Your task to perform on an android device: turn on javascript in the chrome app Image 0: 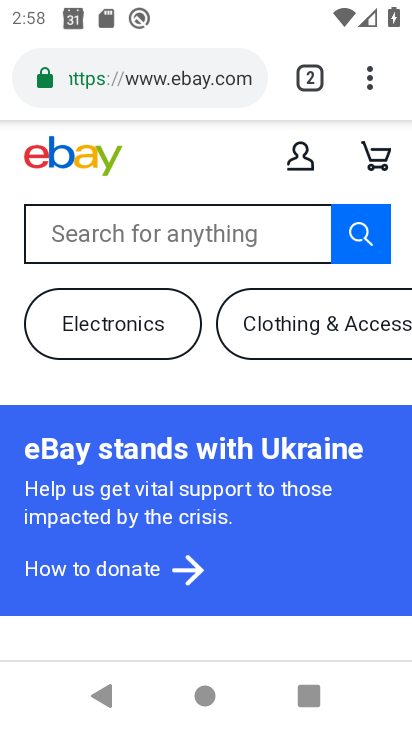
Step 0: click (371, 73)
Your task to perform on an android device: turn on javascript in the chrome app Image 1: 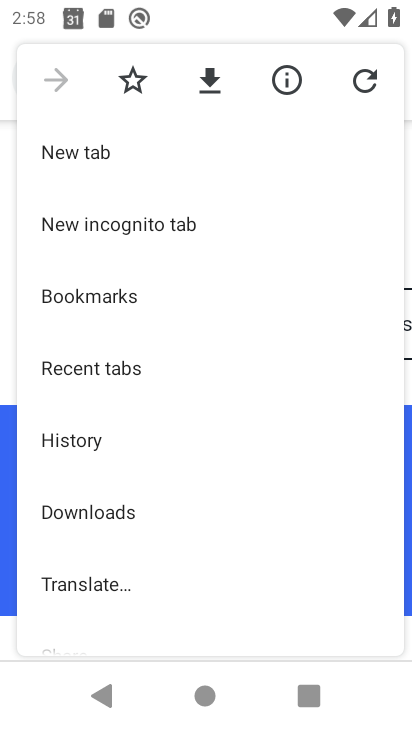
Step 1: drag from (288, 625) to (225, 264)
Your task to perform on an android device: turn on javascript in the chrome app Image 2: 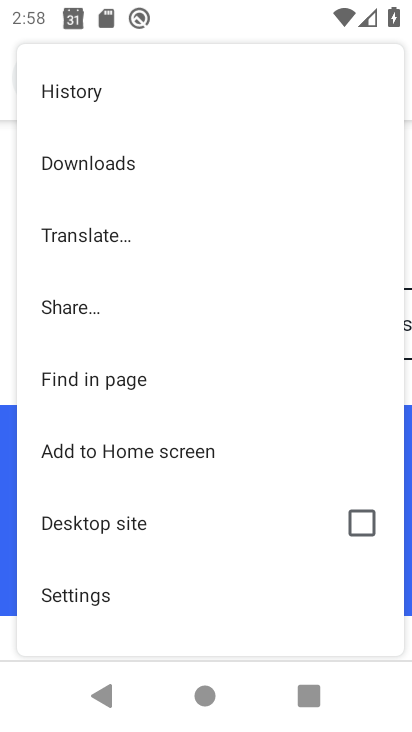
Step 2: click (215, 602)
Your task to perform on an android device: turn on javascript in the chrome app Image 3: 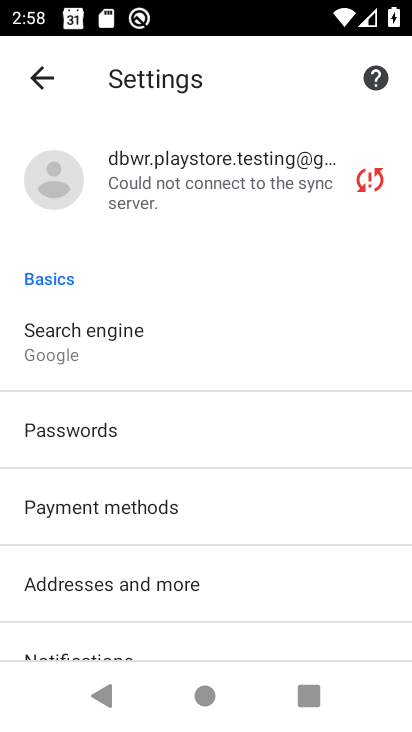
Step 3: drag from (233, 643) to (190, 318)
Your task to perform on an android device: turn on javascript in the chrome app Image 4: 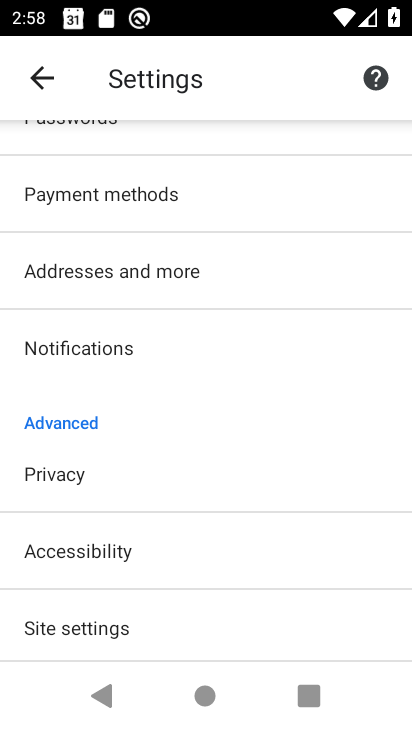
Step 4: click (199, 644)
Your task to perform on an android device: turn on javascript in the chrome app Image 5: 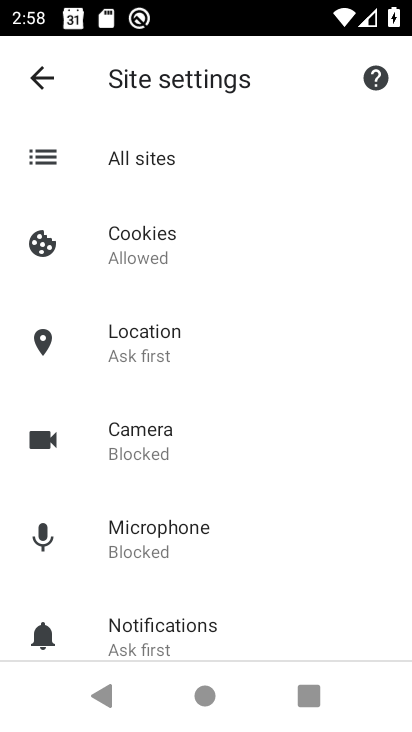
Step 5: drag from (214, 533) to (164, 192)
Your task to perform on an android device: turn on javascript in the chrome app Image 6: 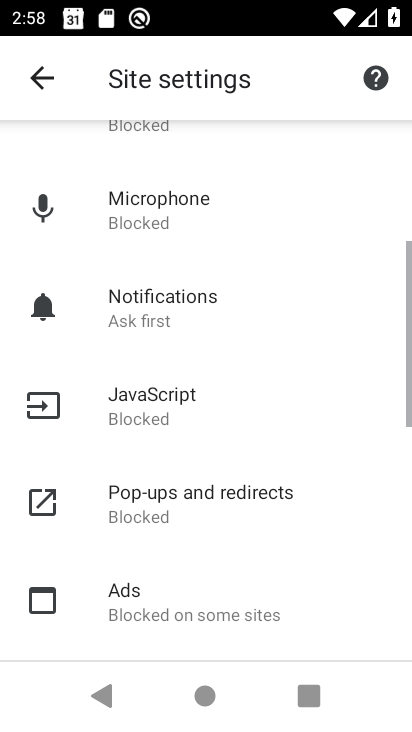
Step 6: click (202, 407)
Your task to perform on an android device: turn on javascript in the chrome app Image 7: 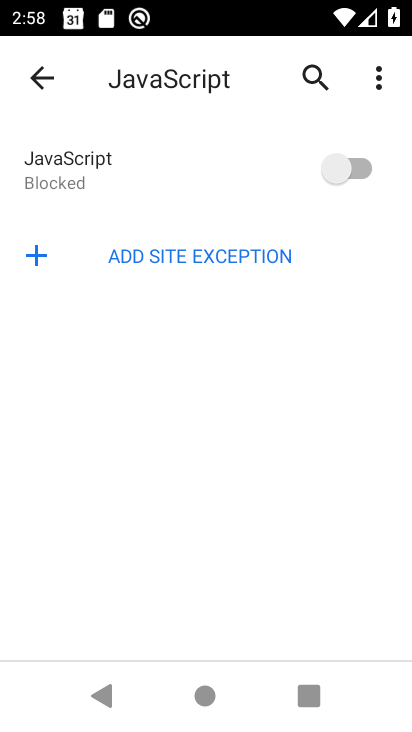
Step 7: click (364, 169)
Your task to perform on an android device: turn on javascript in the chrome app Image 8: 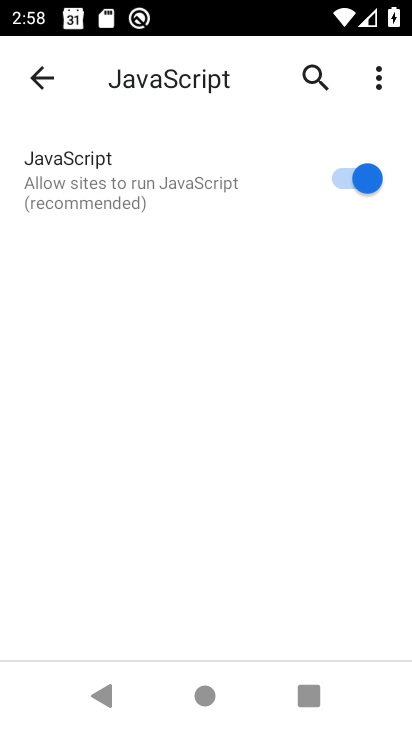
Step 8: task complete